Your task to perform on an android device: Open the web browser Image 0: 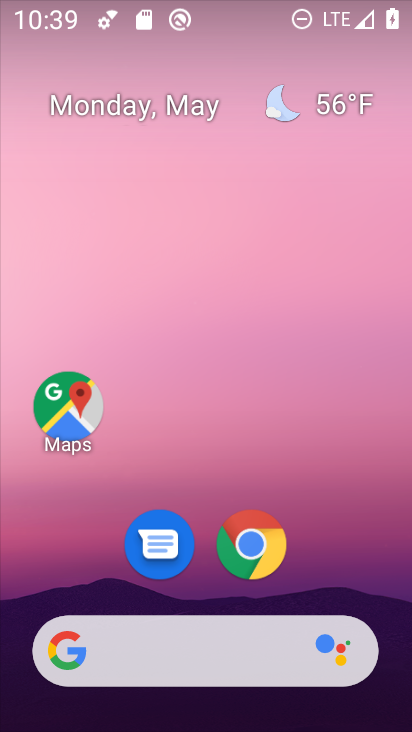
Step 0: click (250, 543)
Your task to perform on an android device: Open the web browser Image 1: 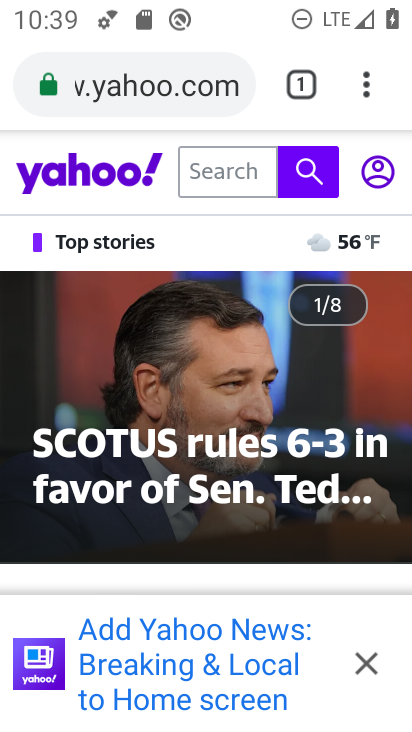
Step 1: task complete